Your task to perform on an android device: toggle priority inbox in the gmail app Image 0: 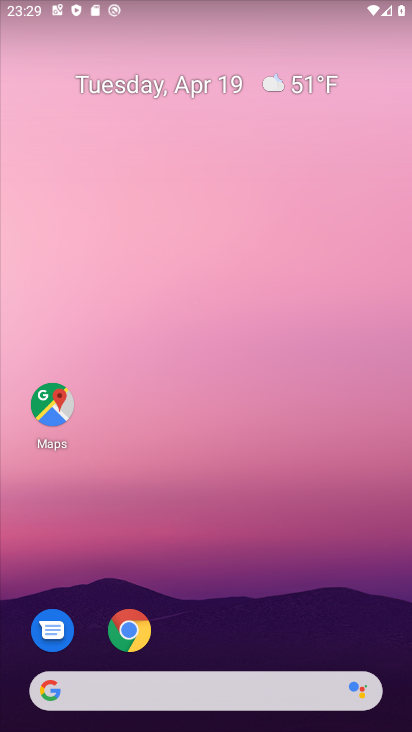
Step 0: drag from (312, 606) to (275, 138)
Your task to perform on an android device: toggle priority inbox in the gmail app Image 1: 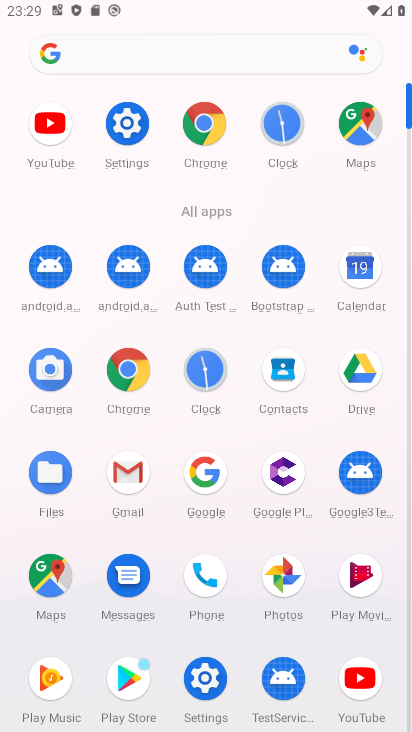
Step 1: click (126, 458)
Your task to perform on an android device: toggle priority inbox in the gmail app Image 2: 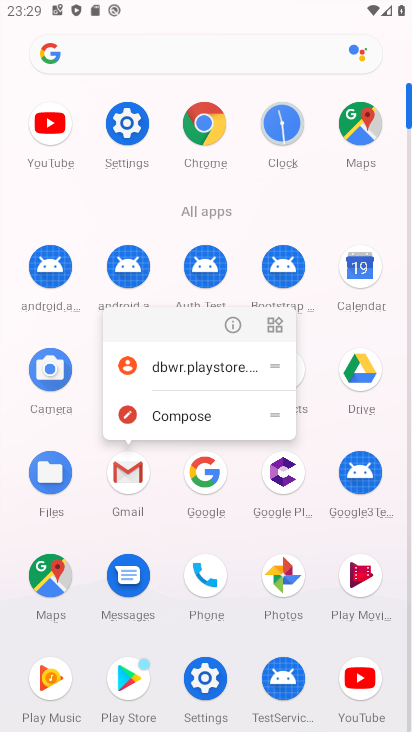
Step 2: click (135, 484)
Your task to perform on an android device: toggle priority inbox in the gmail app Image 3: 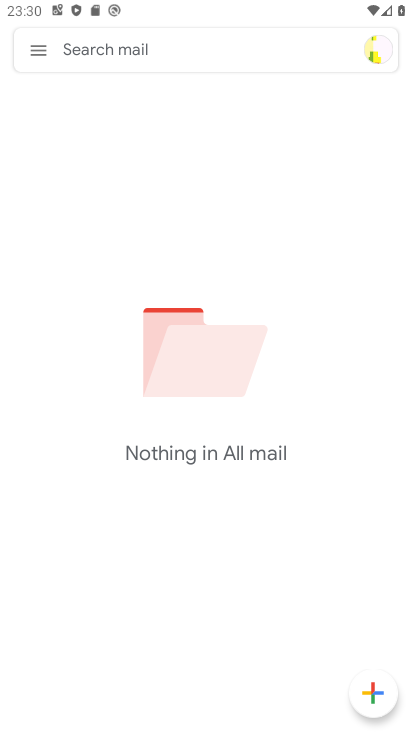
Step 3: click (38, 50)
Your task to perform on an android device: toggle priority inbox in the gmail app Image 4: 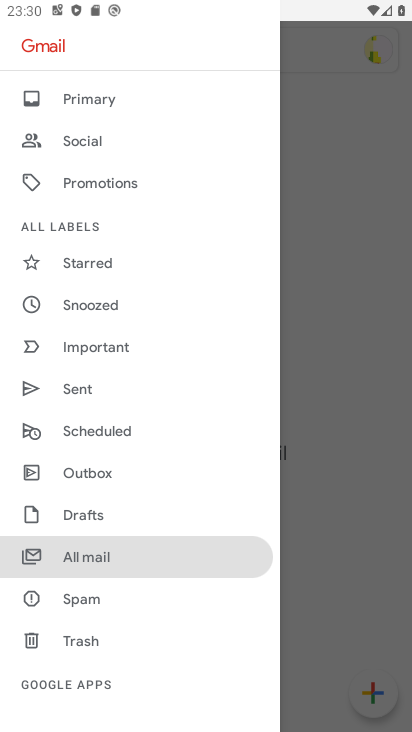
Step 4: drag from (161, 604) to (166, 210)
Your task to perform on an android device: toggle priority inbox in the gmail app Image 5: 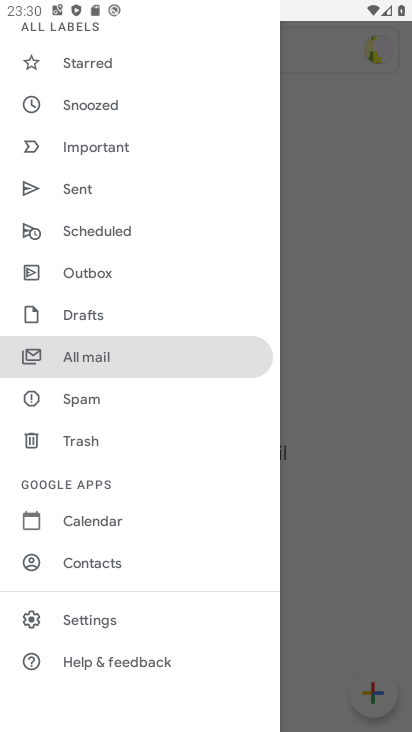
Step 5: click (152, 618)
Your task to perform on an android device: toggle priority inbox in the gmail app Image 6: 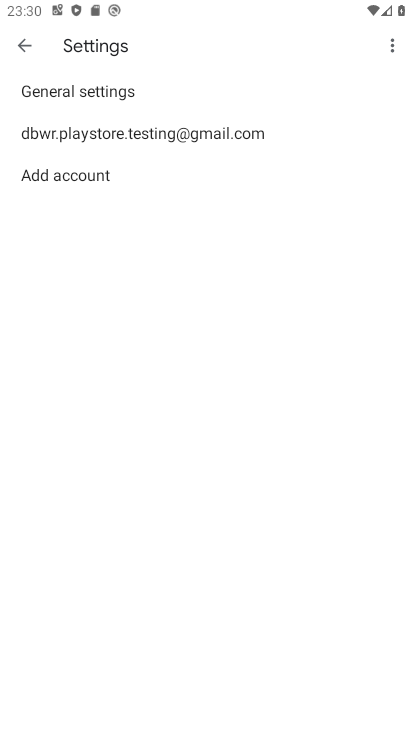
Step 6: click (146, 135)
Your task to perform on an android device: toggle priority inbox in the gmail app Image 7: 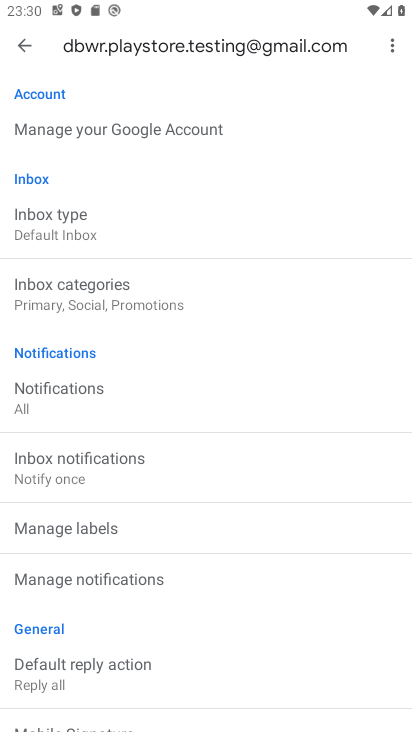
Step 7: click (141, 220)
Your task to perform on an android device: toggle priority inbox in the gmail app Image 8: 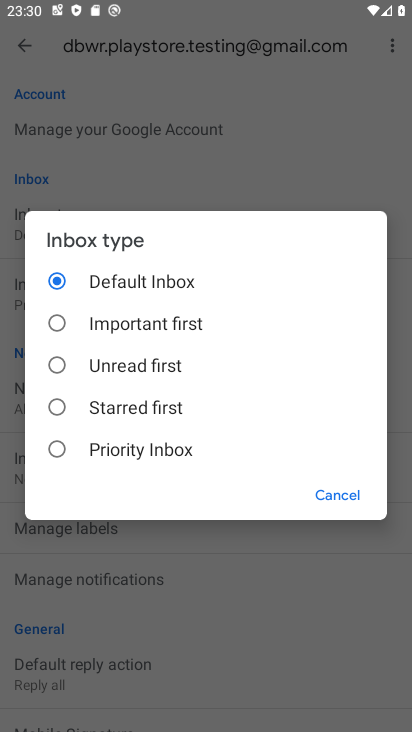
Step 8: click (151, 449)
Your task to perform on an android device: toggle priority inbox in the gmail app Image 9: 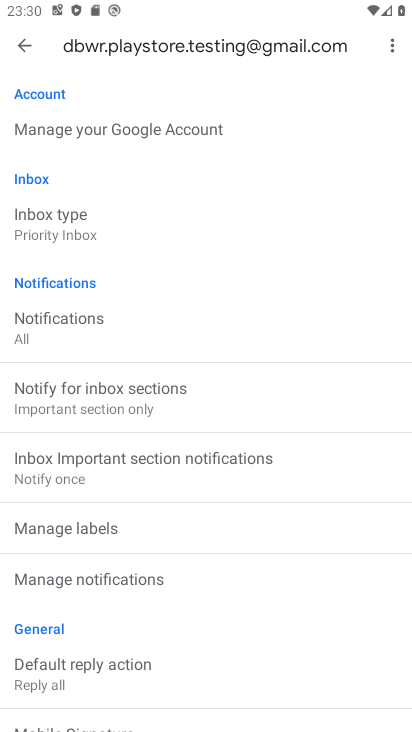
Step 9: task complete